Your task to perform on an android device: add a contact Image 0: 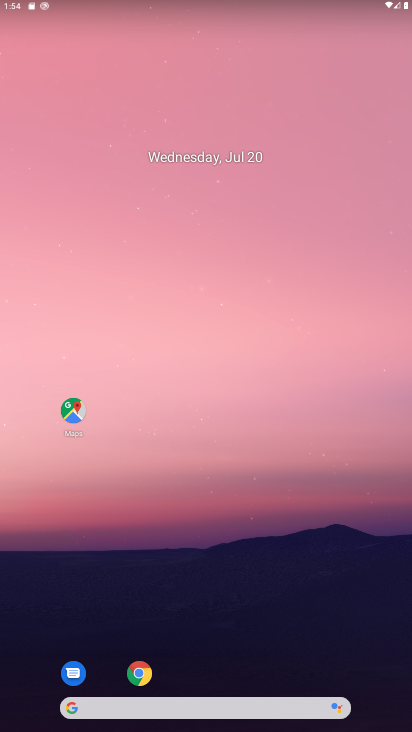
Step 0: click (156, 124)
Your task to perform on an android device: add a contact Image 1: 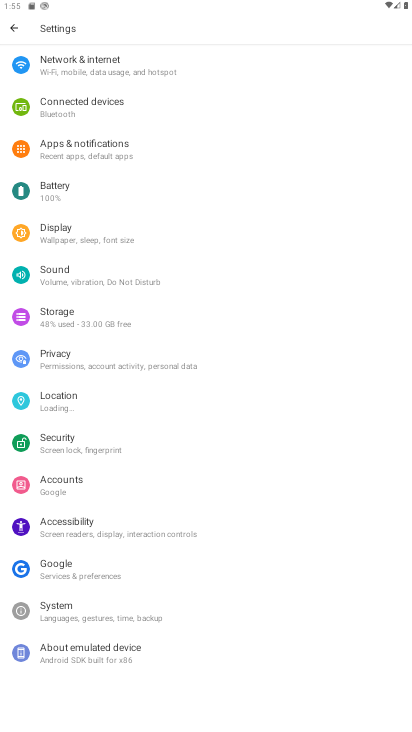
Step 1: press home button
Your task to perform on an android device: add a contact Image 2: 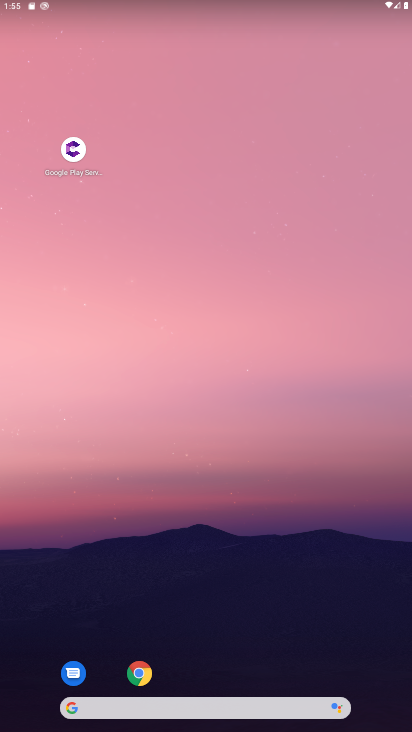
Step 2: drag from (202, 710) to (118, 79)
Your task to perform on an android device: add a contact Image 3: 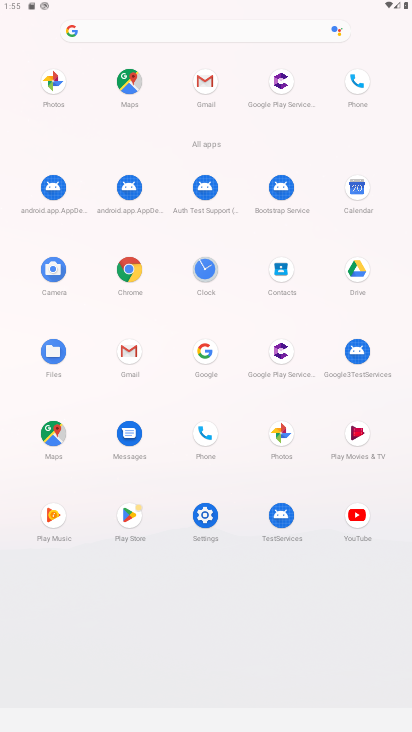
Step 3: click (272, 272)
Your task to perform on an android device: add a contact Image 4: 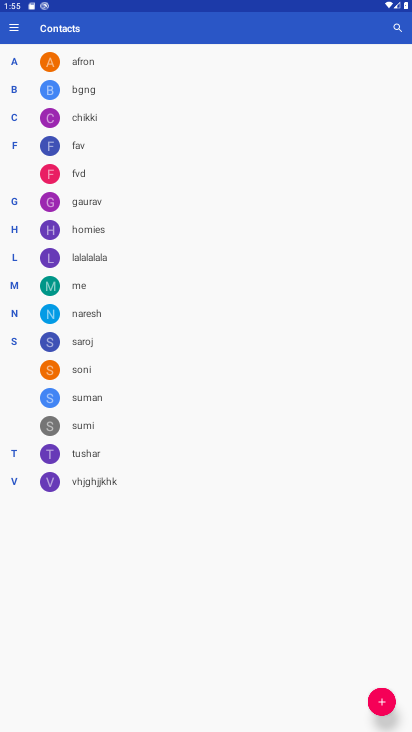
Step 4: click (380, 705)
Your task to perform on an android device: add a contact Image 5: 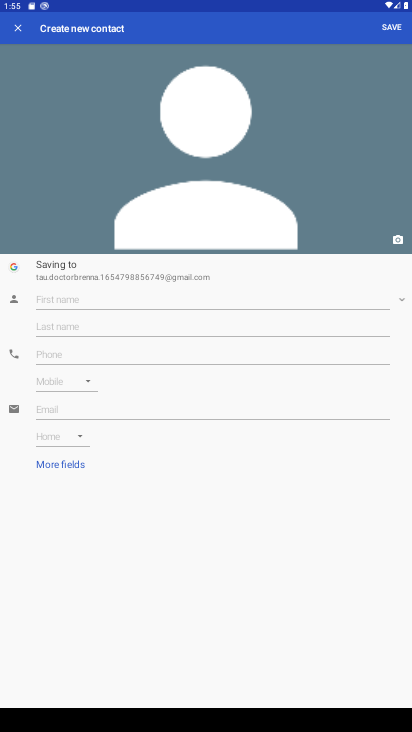
Step 5: click (133, 299)
Your task to perform on an android device: add a contact Image 6: 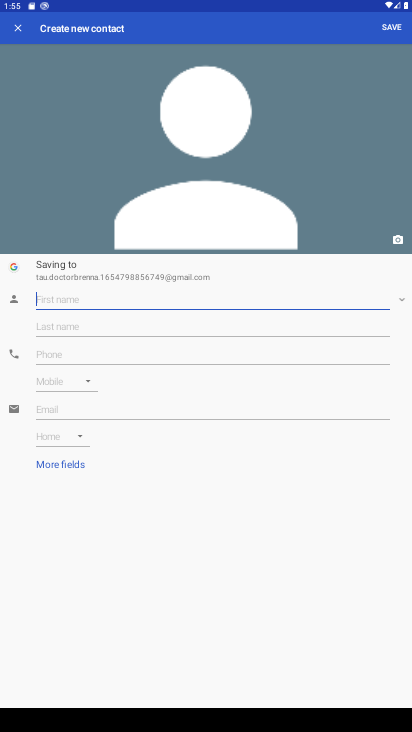
Step 6: type "asjdhas"
Your task to perform on an android device: add a contact Image 7: 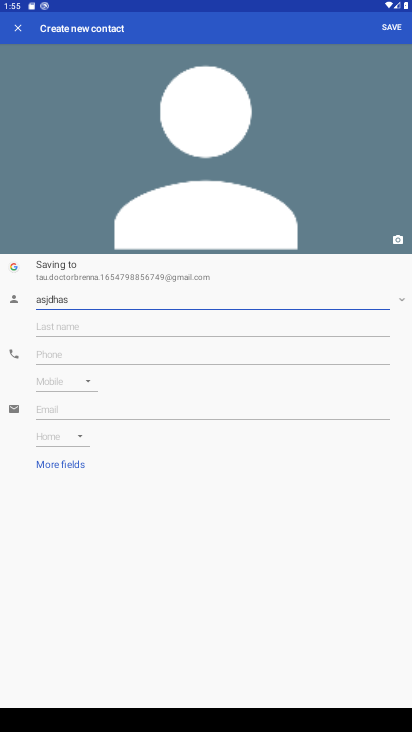
Step 7: click (123, 351)
Your task to perform on an android device: add a contact Image 8: 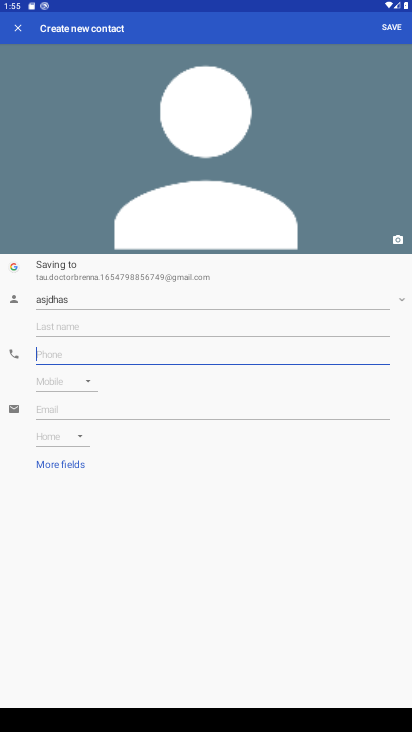
Step 8: type "826472"
Your task to perform on an android device: add a contact Image 9: 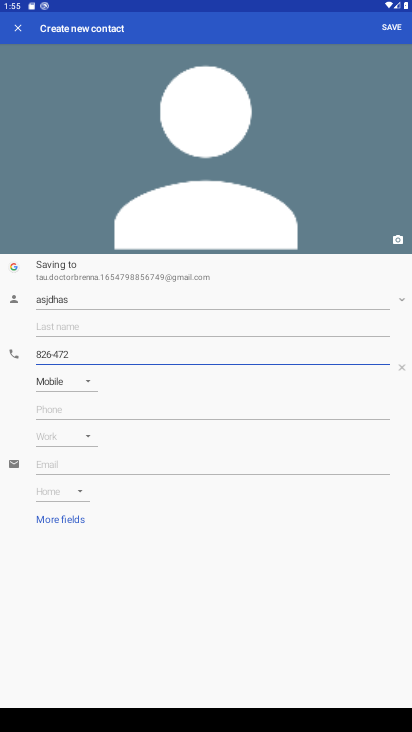
Step 9: click (392, 27)
Your task to perform on an android device: add a contact Image 10: 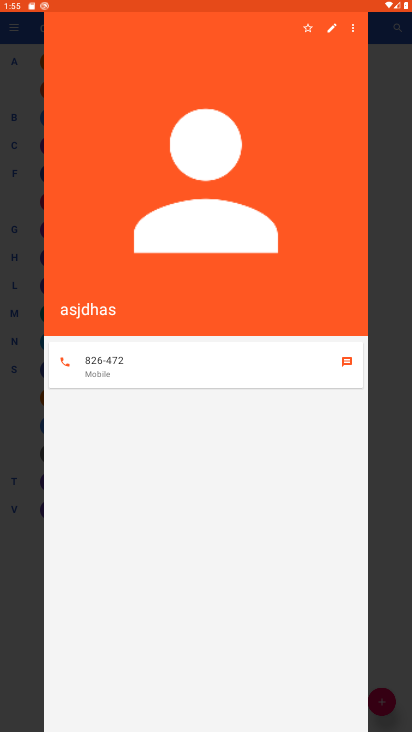
Step 10: task complete